Your task to perform on an android device: change timer sound Image 0: 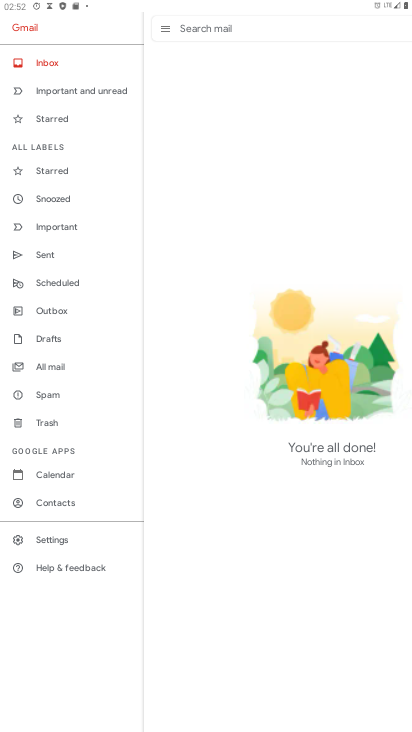
Step 0: press home button
Your task to perform on an android device: change timer sound Image 1: 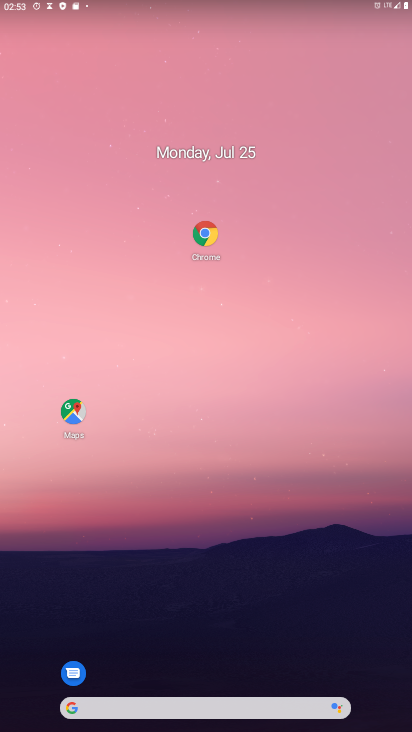
Step 1: drag from (301, 602) to (341, 4)
Your task to perform on an android device: change timer sound Image 2: 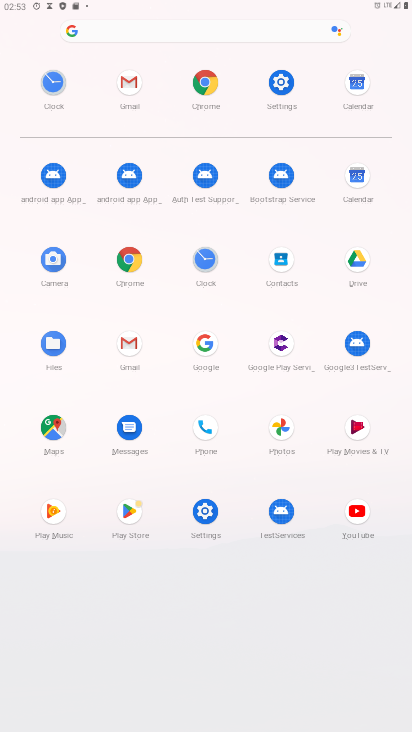
Step 2: click (206, 263)
Your task to perform on an android device: change timer sound Image 3: 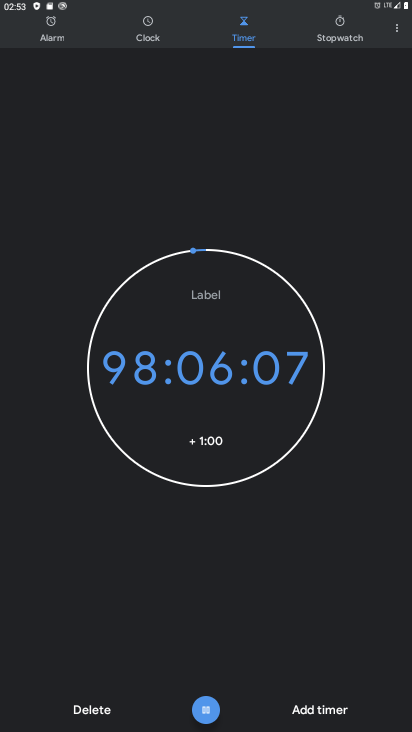
Step 3: task complete